Your task to perform on an android device: change alarm snooze length Image 0: 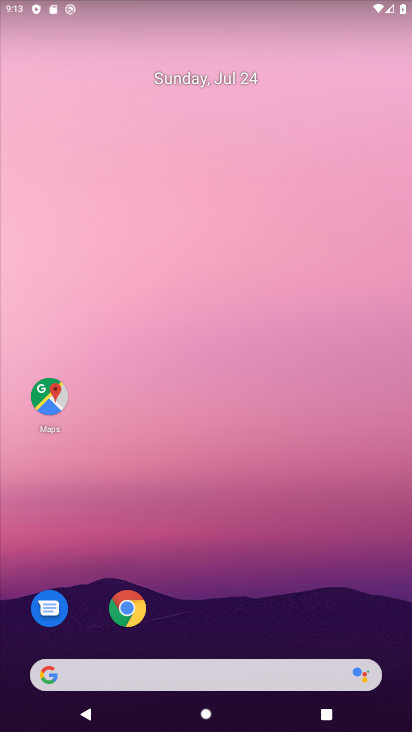
Step 0: press home button
Your task to perform on an android device: change alarm snooze length Image 1: 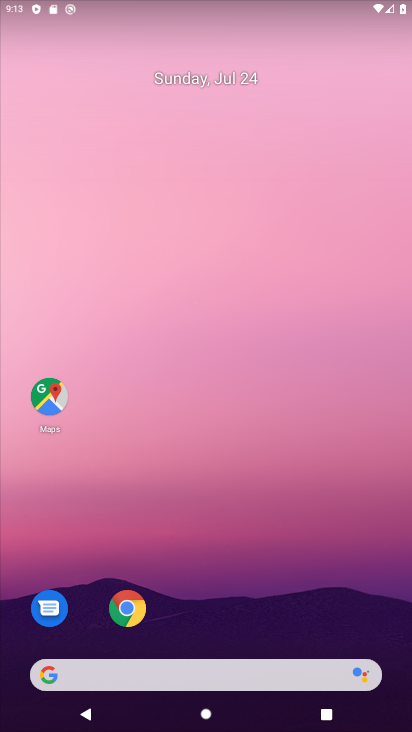
Step 1: press home button
Your task to perform on an android device: change alarm snooze length Image 2: 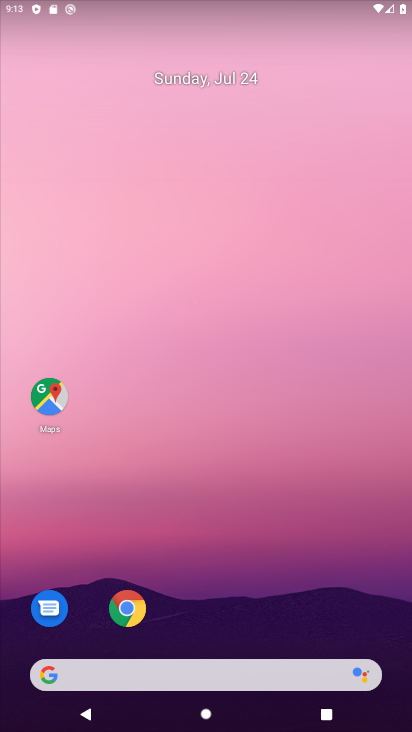
Step 2: press home button
Your task to perform on an android device: change alarm snooze length Image 3: 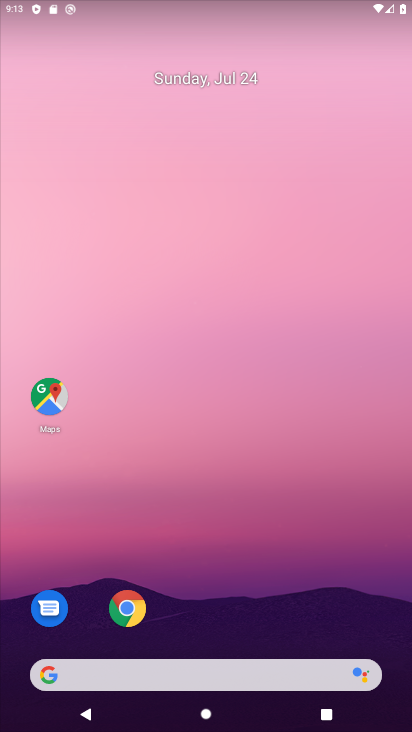
Step 3: drag from (249, 633) to (224, 134)
Your task to perform on an android device: change alarm snooze length Image 4: 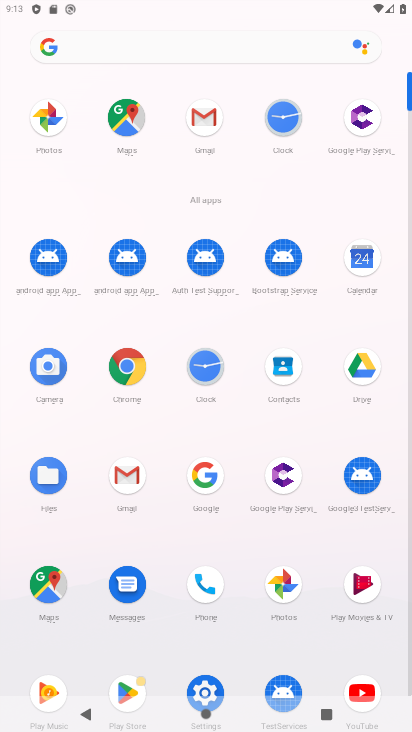
Step 4: click (284, 113)
Your task to perform on an android device: change alarm snooze length Image 5: 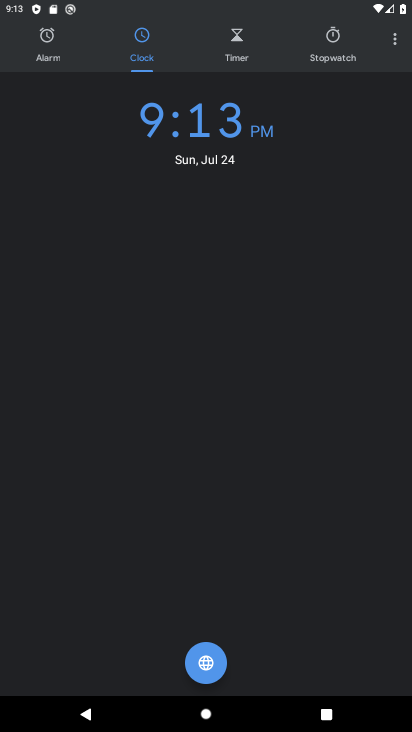
Step 5: click (396, 40)
Your task to perform on an android device: change alarm snooze length Image 6: 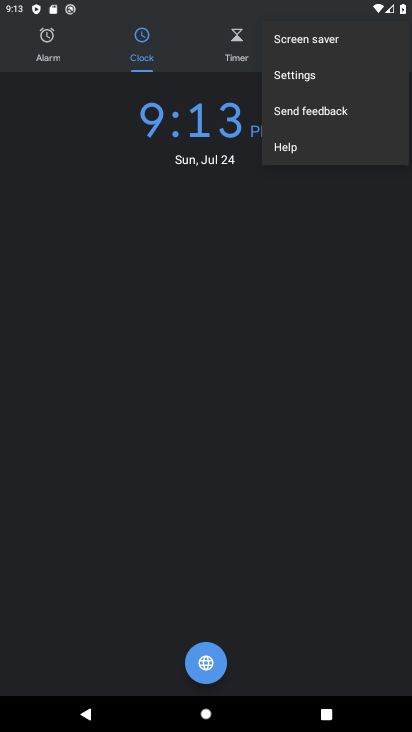
Step 6: click (326, 72)
Your task to perform on an android device: change alarm snooze length Image 7: 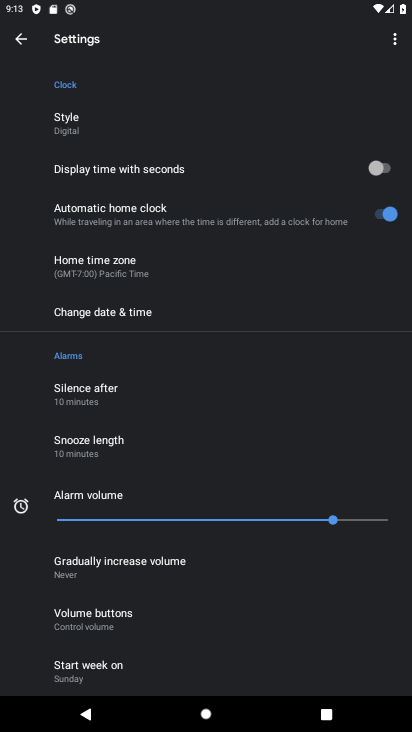
Step 7: click (109, 444)
Your task to perform on an android device: change alarm snooze length Image 8: 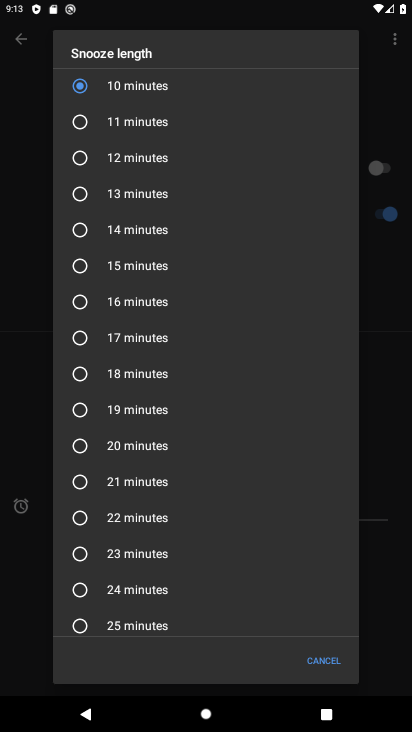
Step 8: click (120, 410)
Your task to perform on an android device: change alarm snooze length Image 9: 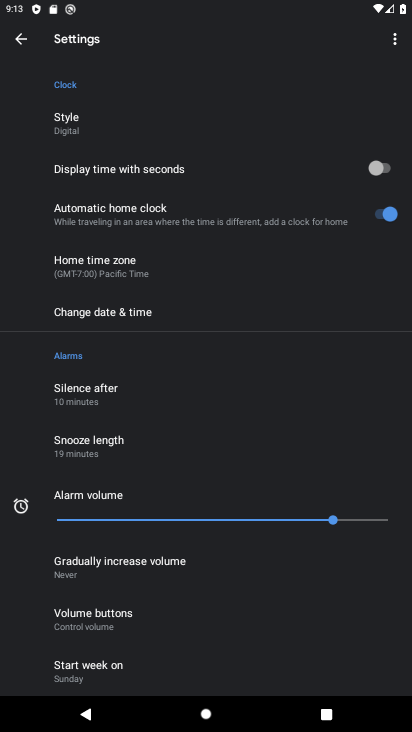
Step 9: task complete